Your task to perform on an android device: Show me productivity apps on the Play Store Image 0: 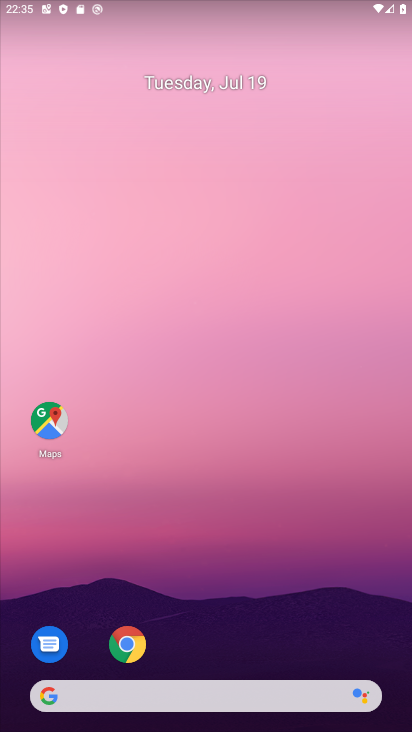
Step 0: drag from (234, 728) to (225, 414)
Your task to perform on an android device: Show me productivity apps on the Play Store Image 1: 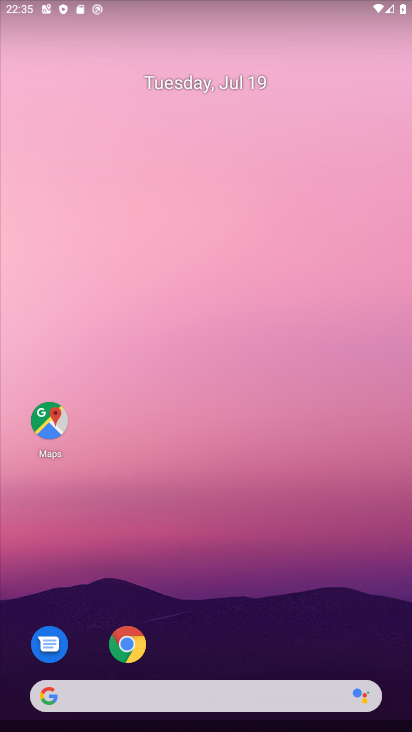
Step 1: drag from (231, 721) to (231, 360)
Your task to perform on an android device: Show me productivity apps on the Play Store Image 2: 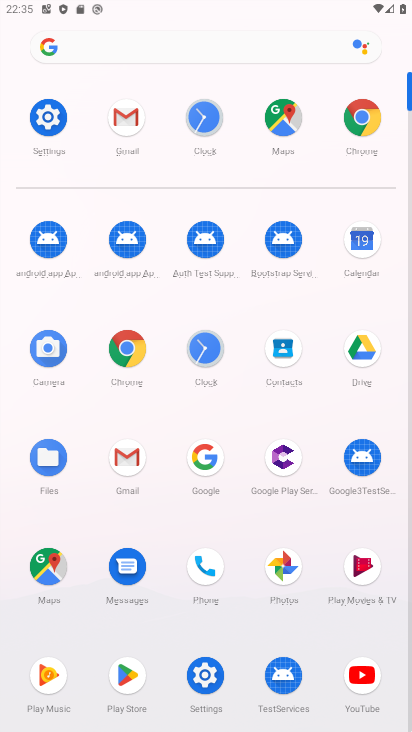
Step 2: click (121, 678)
Your task to perform on an android device: Show me productivity apps on the Play Store Image 3: 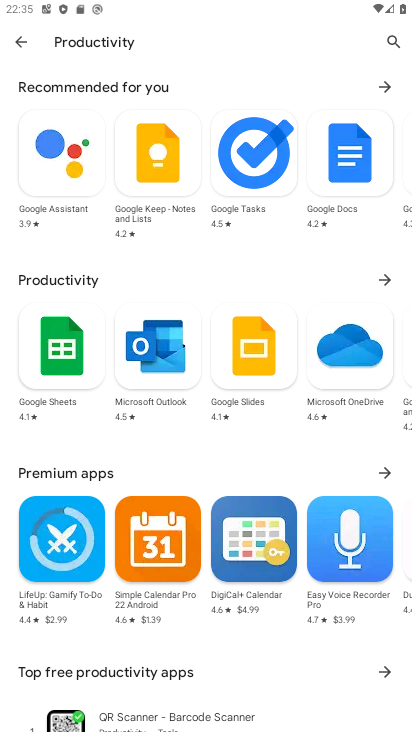
Step 3: task complete